Your task to perform on an android device: Show me productivity apps on the Play Store Image 0: 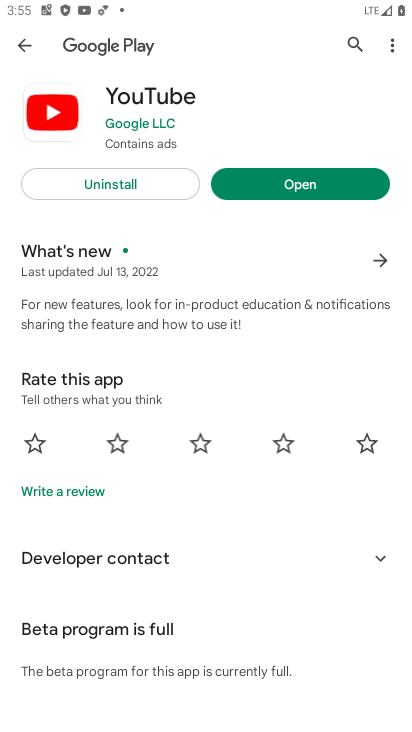
Step 0: press home button
Your task to perform on an android device: Show me productivity apps on the Play Store Image 1: 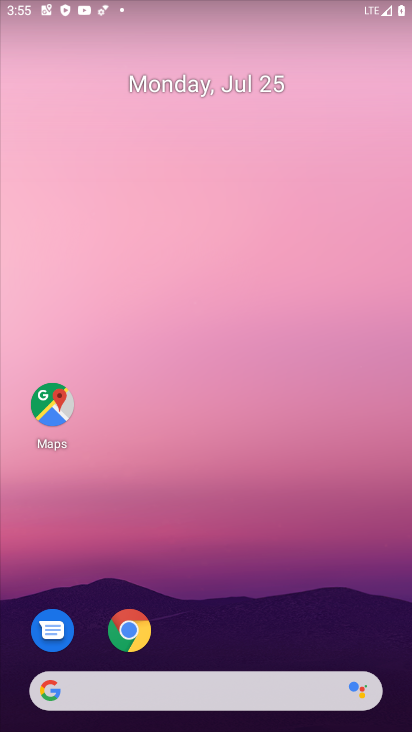
Step 1: drag from (230, 602) to (378, 23)
Your task to perform on an android device: Show me productivity apps on the Play Store Image 2: 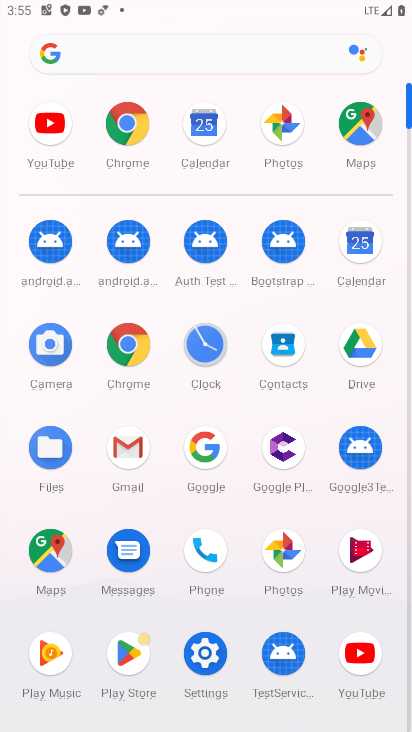
Step 2: click (115, 649)
Your task to perform on an android device: Show me productivity apps on the Play Store Image 3: 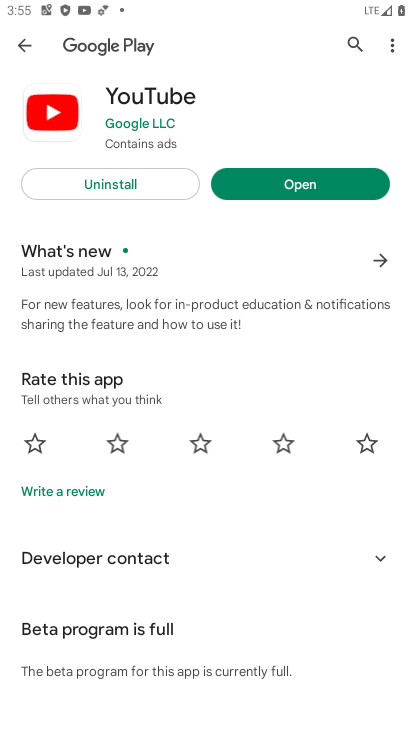
Step 3: click (16, 36)
Your task to perform on an android device: Show me productivity apps on the Play Store Image 4: 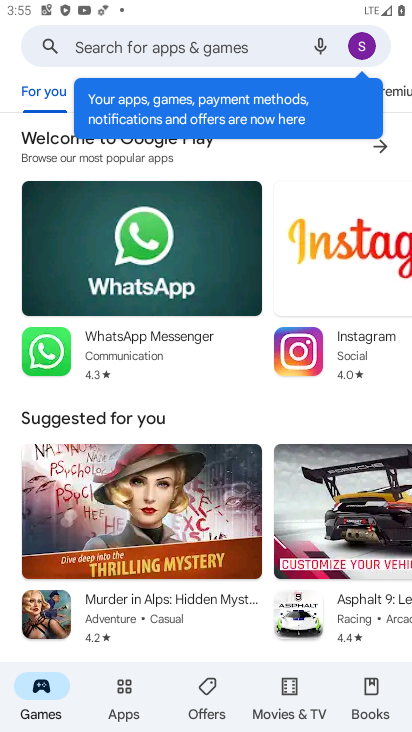
Step 4: click (124, 702)
Your task to perform on an android device: Show me productivity apps on the Play Store Image 5: 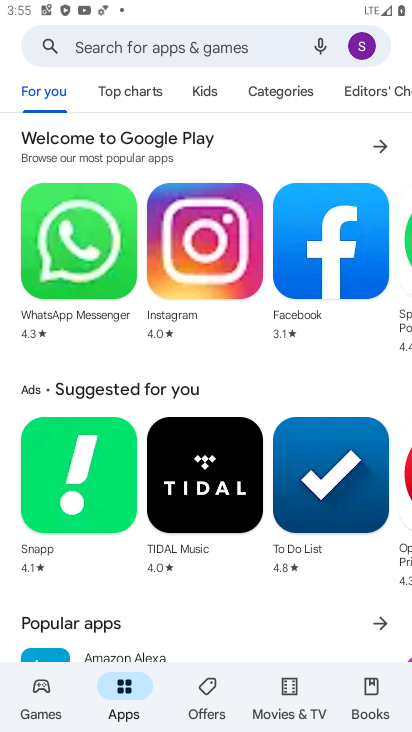
Step 5: click (286, 92)
Your task to perform on an android device: Show me productivity apps on the Play Store Image 6: 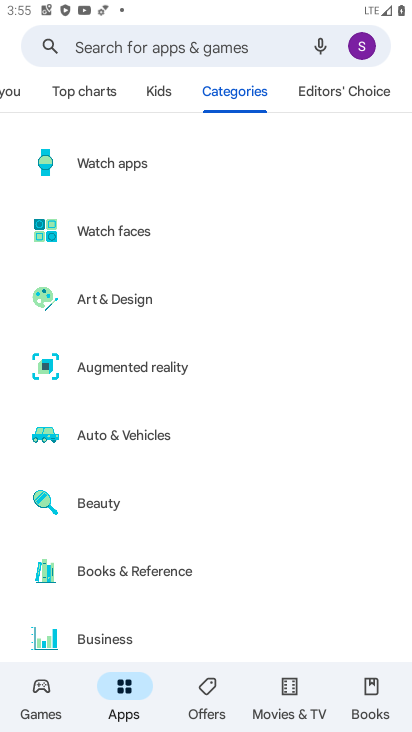
Step 6: drag from (165, 601) to (223, 110)
Your task to perform on an android device: Show me productivity apps on the Play Store Image 7: 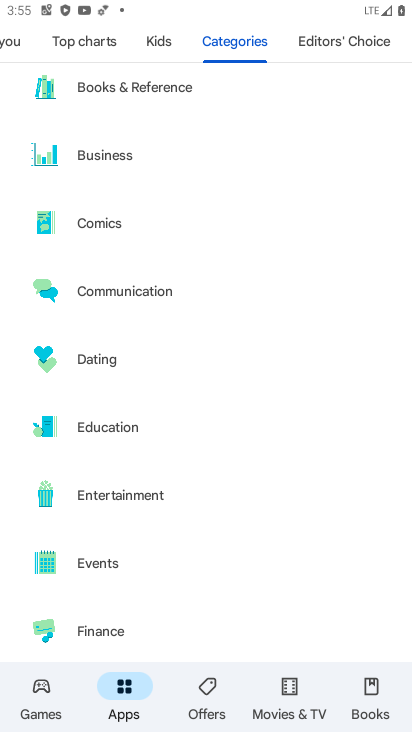
Step 7: drag from (165, 586) to (164, 62)
Your task to perform on an android device: Show me productivity apps on the Play Store Image 8: 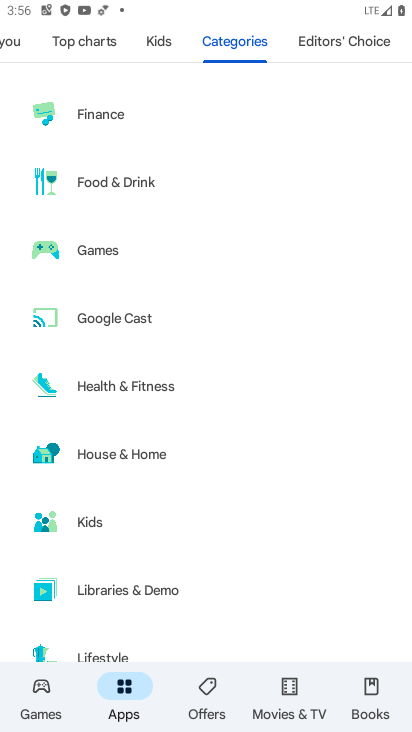
Step 8: drag from (141, 581) to (176, 284)
Your task to perform on an android device: Show me productivity apps on the Play Store Image 9: 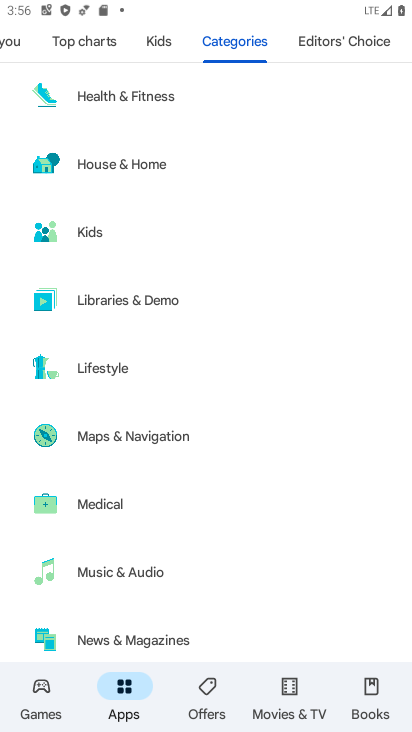
Step 9: drag from (145, 518) to (164, 307)
Your task to perform on an android device: Show me productivity apps on the Play Store Image 10: 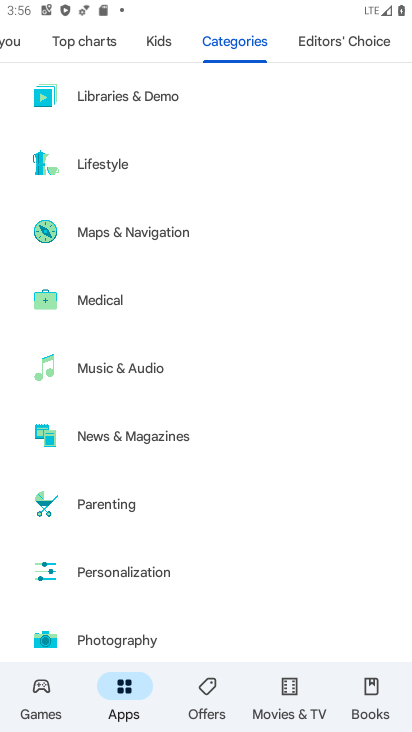
Step 10: drag from (140, 570) to (134, 15)
Your task to perform on an android device: Show me productivity apps on the Play Store Image 11: 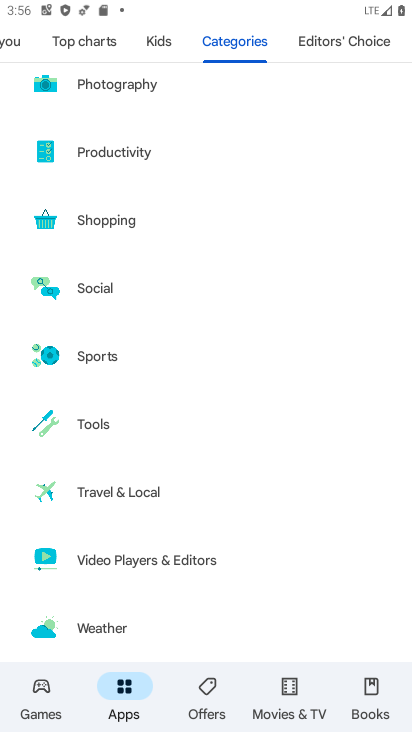
Step 11: click (116, 161)
Your task to perform on an android device: Show me productivity apps on the Play Store Image 12: 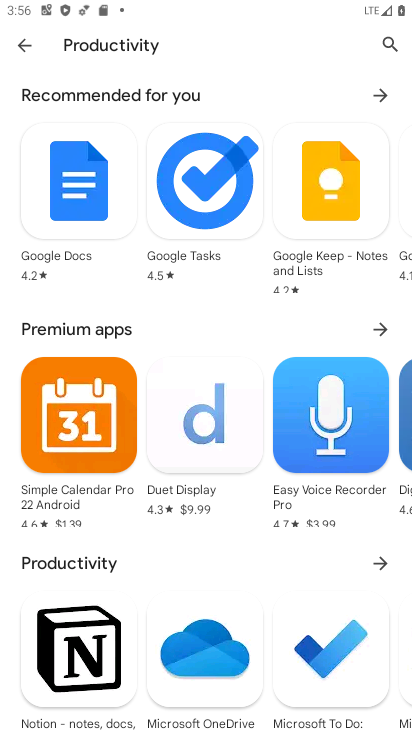
Step 12: task complete